Your task to perform on an android device: Search for "usb-a to usb-b" on target, select the first entry, and add it to the cart. Image 0: 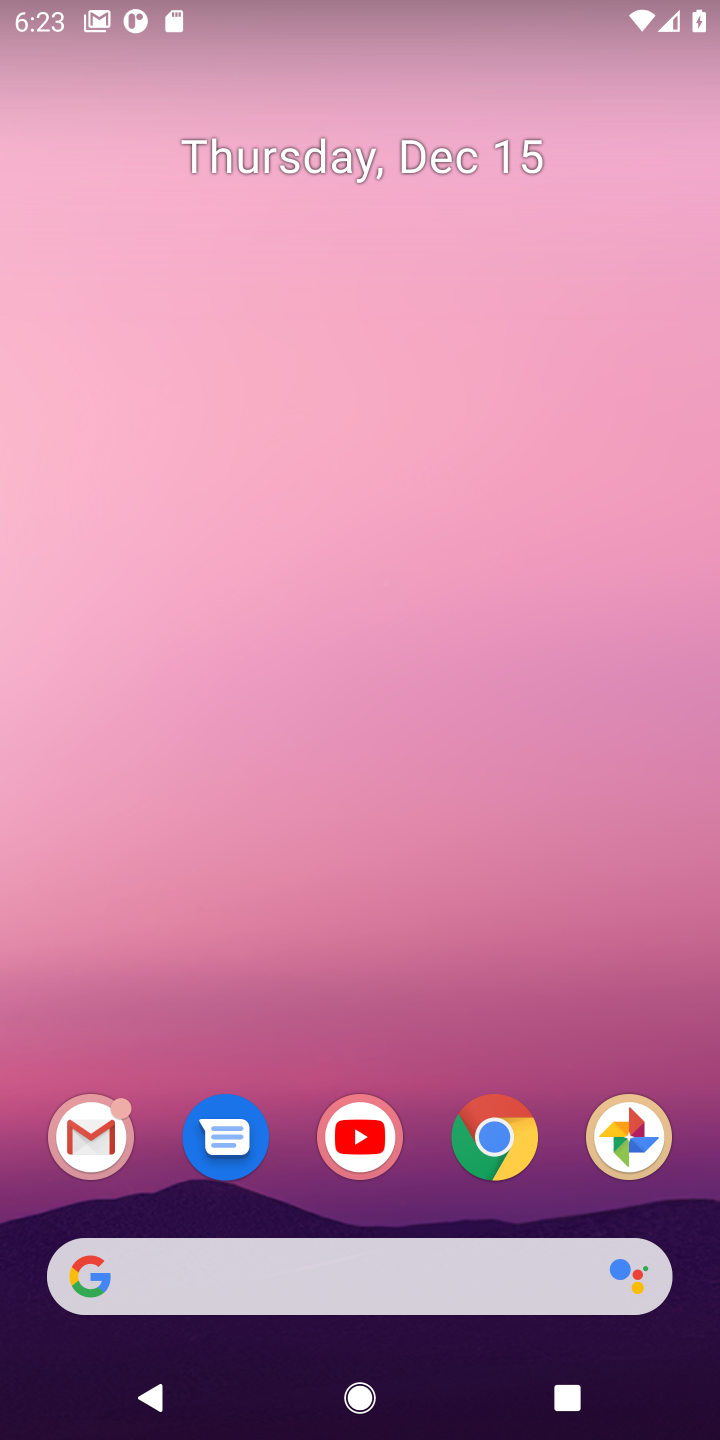
Step 0: drag from (327, 1266) to (330, 393)
Your task to perform on an android device: Search for "usb-a to usb-b" on target, select the first entry, and add it to the cart. Image 1: 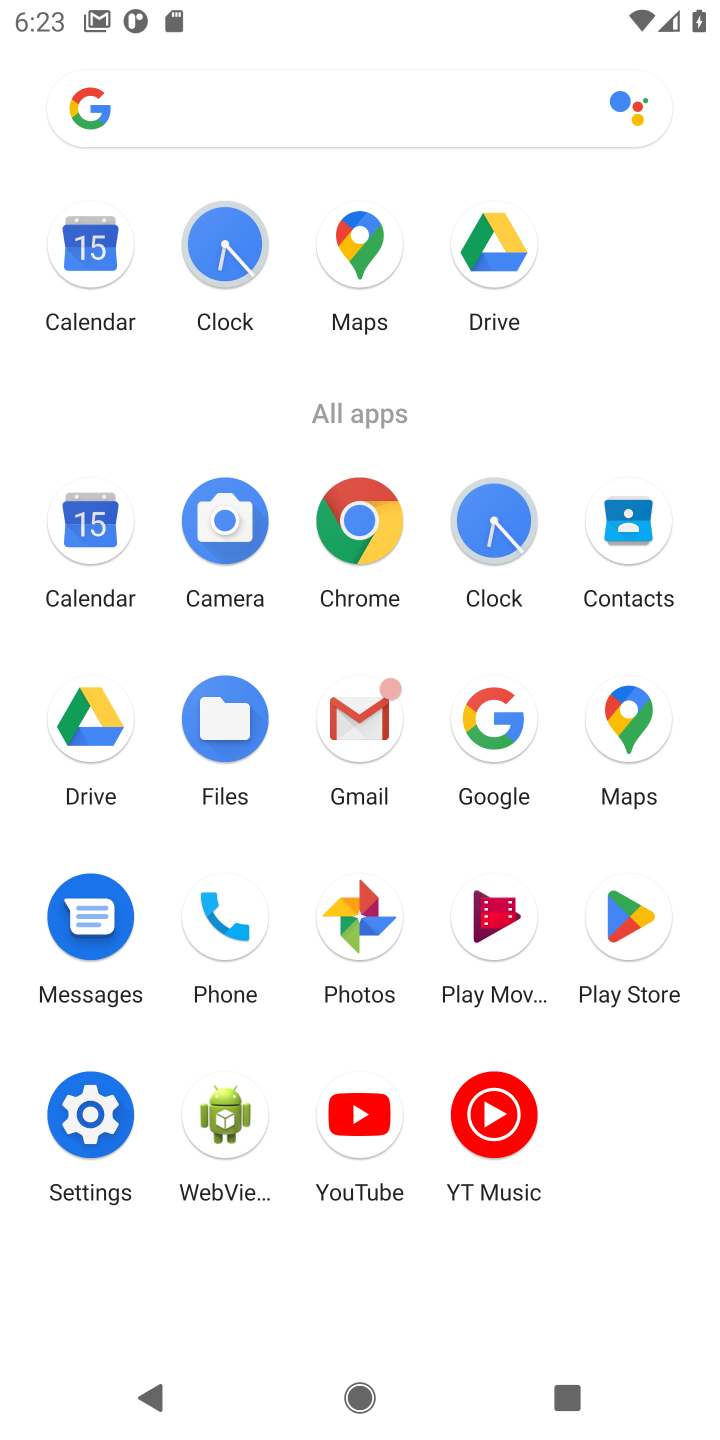
Step 1: click (519, 705)
Your task to perform on an android device: Search for "usb-a to usb-b" on target, select the first entry, and add it to the cart. Image 2: 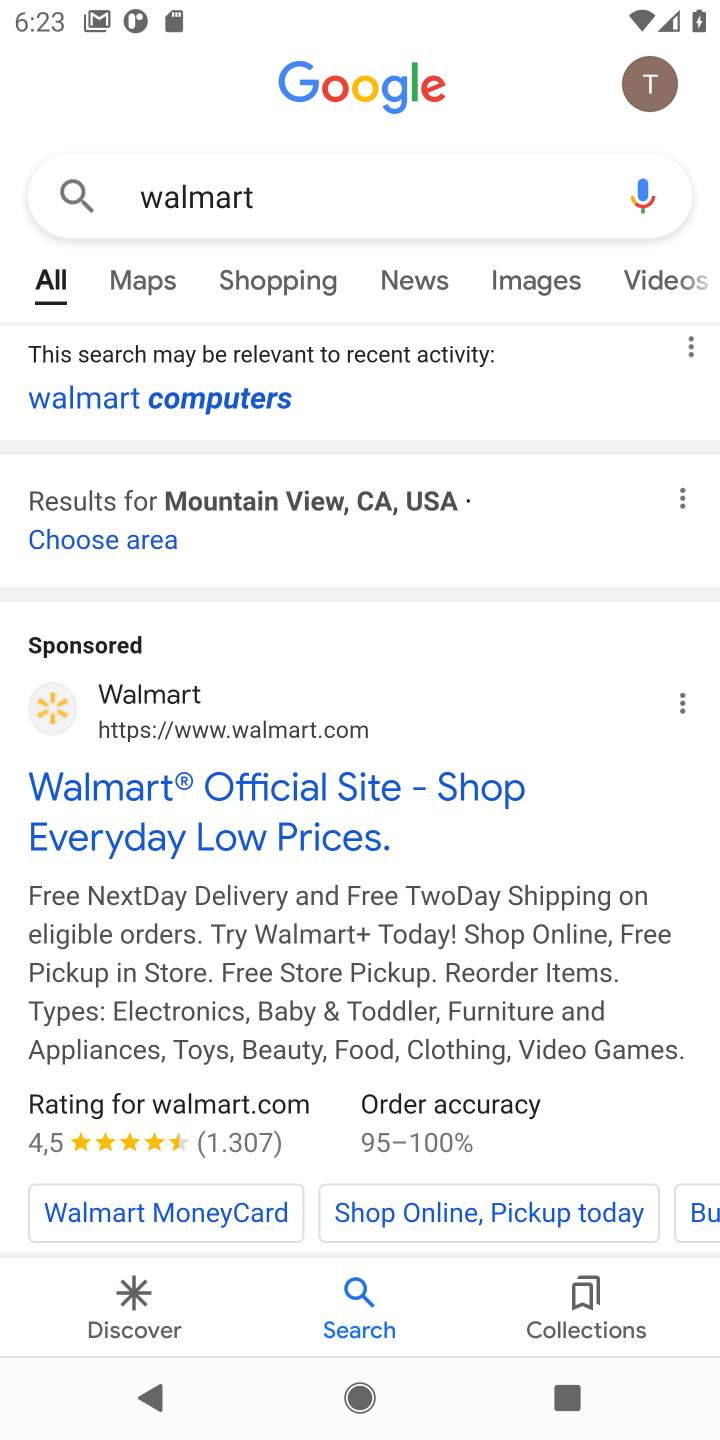
Step 2: click (202, 209)
Your task to perform on an android device: Search for "usb-a to usb-b" on target, select the first entry, and add it to the cart. Image 3: 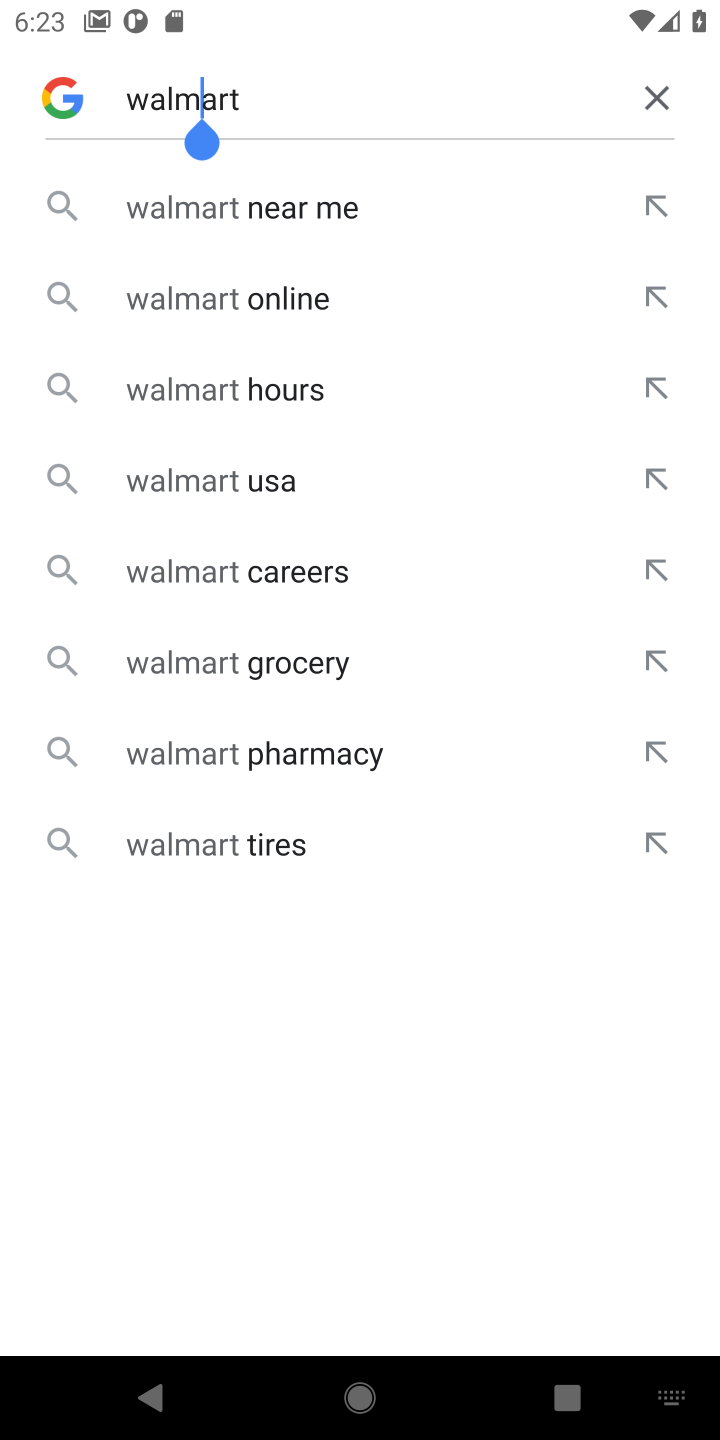
Step 3: click (638, 89)
Your task to perform on an android device: Search for "usb-a to usb-b" on target, select the first entry, and add it to the cart. Image 4: 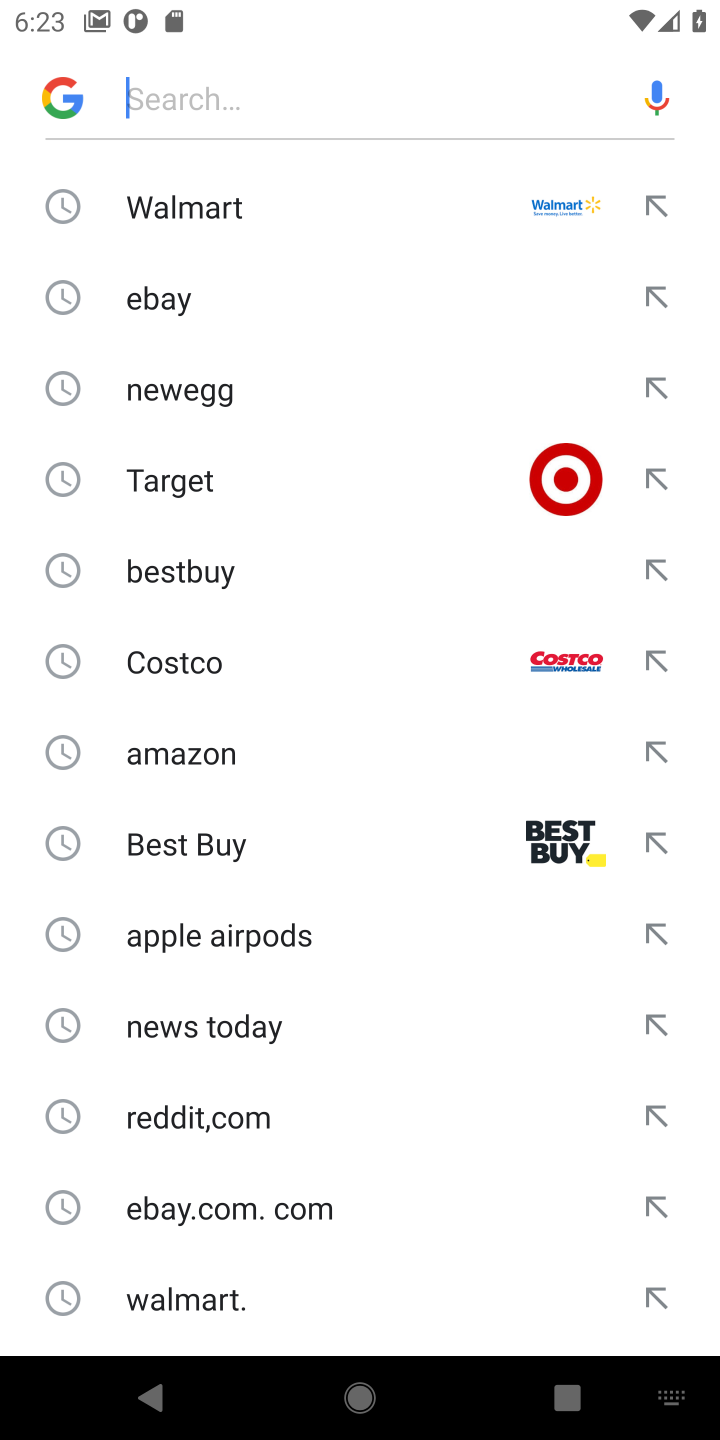
Step 4: click (160, 468)
Your task to perform on an android device: Search for "usb-a to usb-b" on target, select the first entry, and add it to the cart. Image 5: 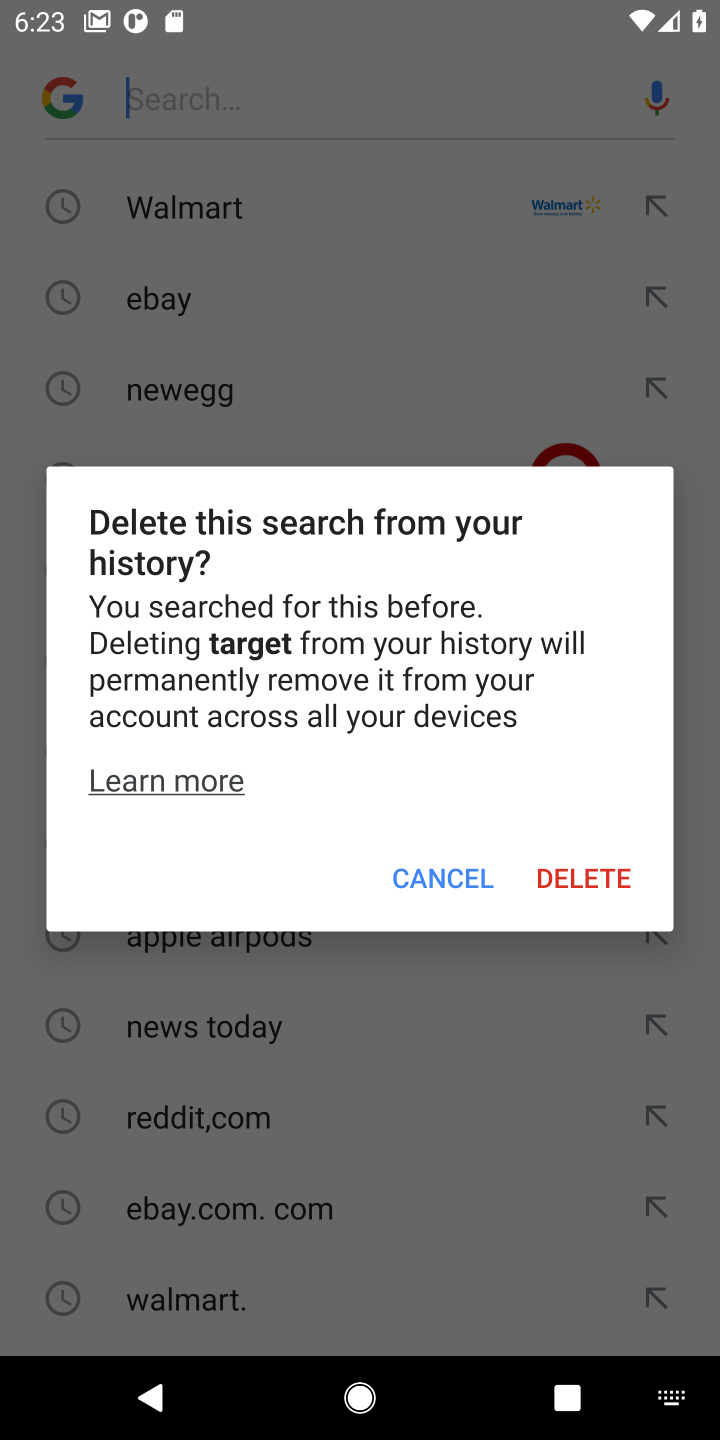
Step 5: click (437, 880)
Your task to perform on an android device: Search for "usb-a to usb-b" on target, select the first entry, and add it to the cart. Image 6: 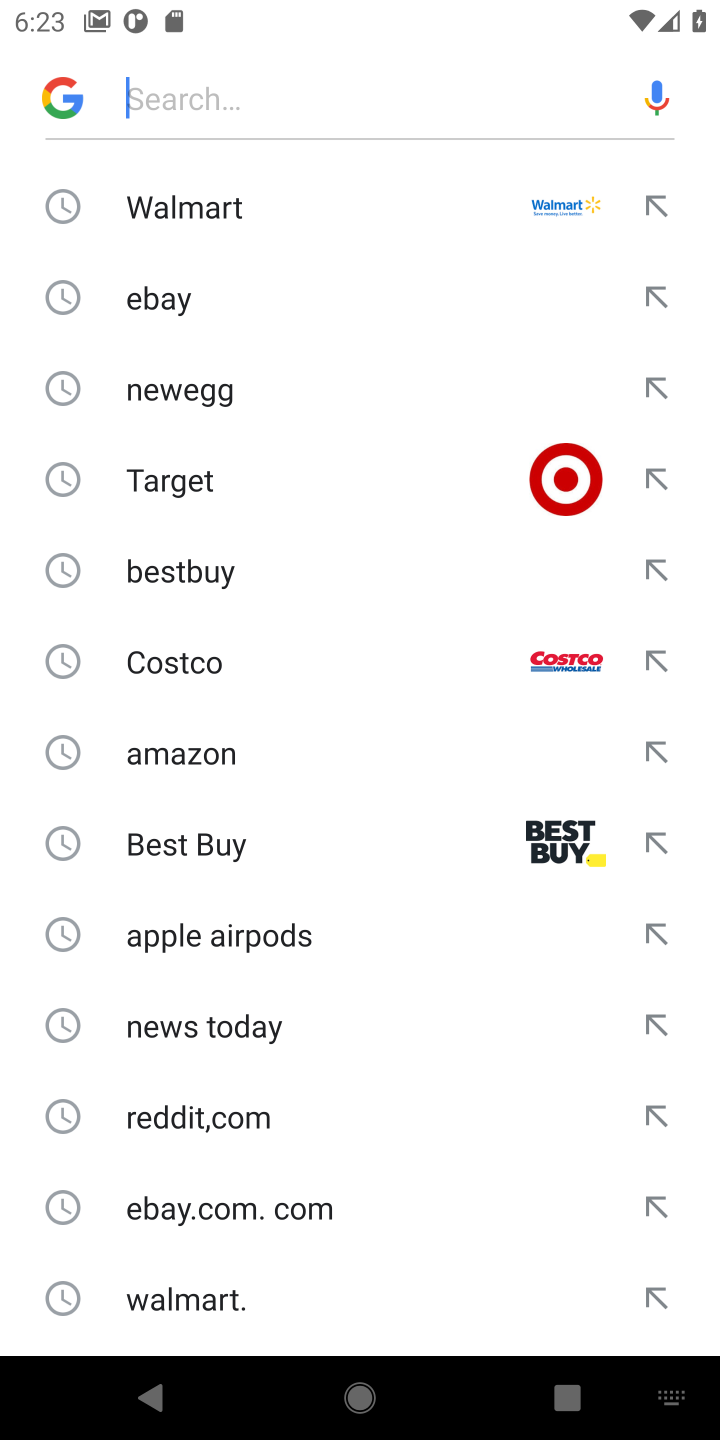
Step 6: click (560, 480)
Your task to perform on an android device: Search for "usb-a to usb-b" on target, select the first entry, and add it to the cart. Image 7: 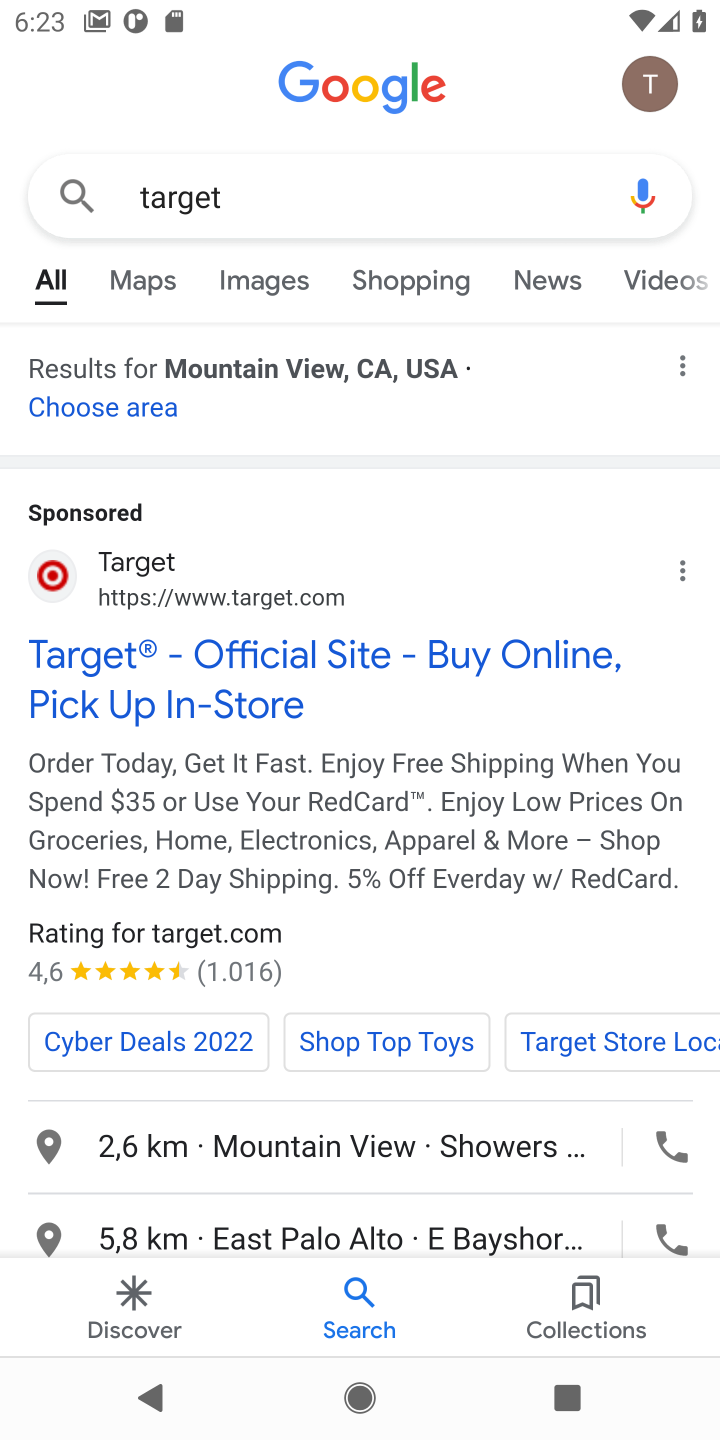
Step 7: click (176, 200)
Your task to perform on an android device: Search for "usb-a to usb-b" on target, select the first entry, and add it to the cart. Image 8: 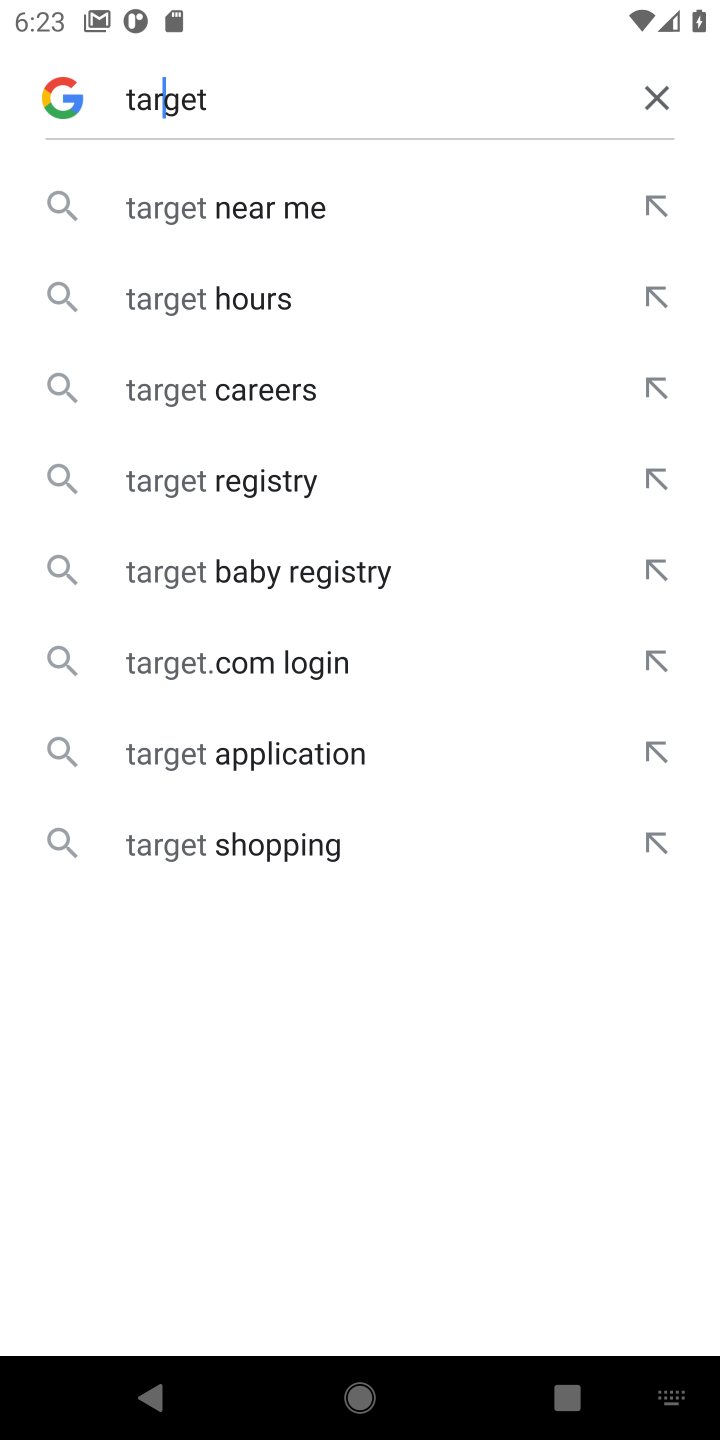
Step 8: click (661, 103)
Your task to perform on an android device: Search for "usb-a to usb-b" on target, select the first entry, and add it to the cart. Image 9: 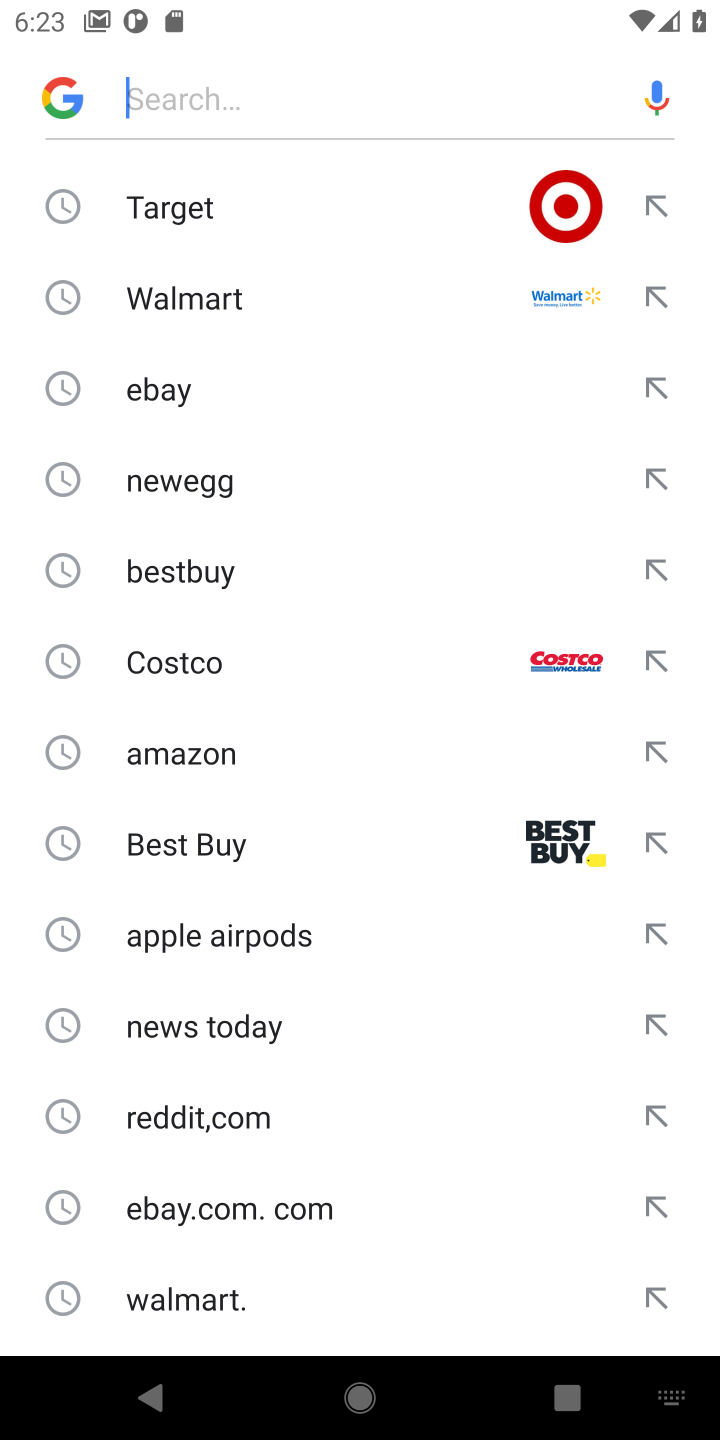
Step 9: click (182, 201)
Your task to perform on an android device: Search for "usb-a to usb-b" on target, select the first entry, and add it to the cart. Image 10: 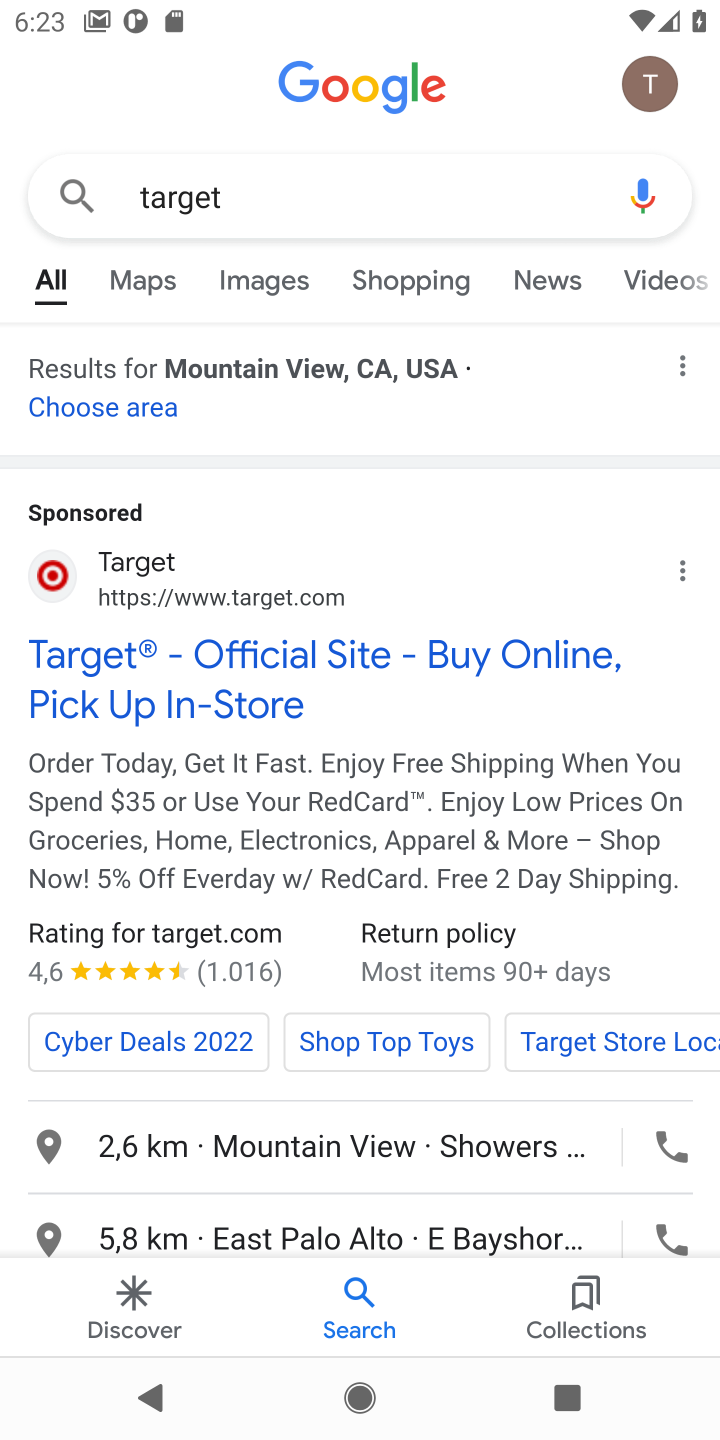
Step 10: click (218, 666)
Your task to perform on an android device: Search for "usb-a to usb-b" on target, select the first entry, and add it to the cart. Image 11: 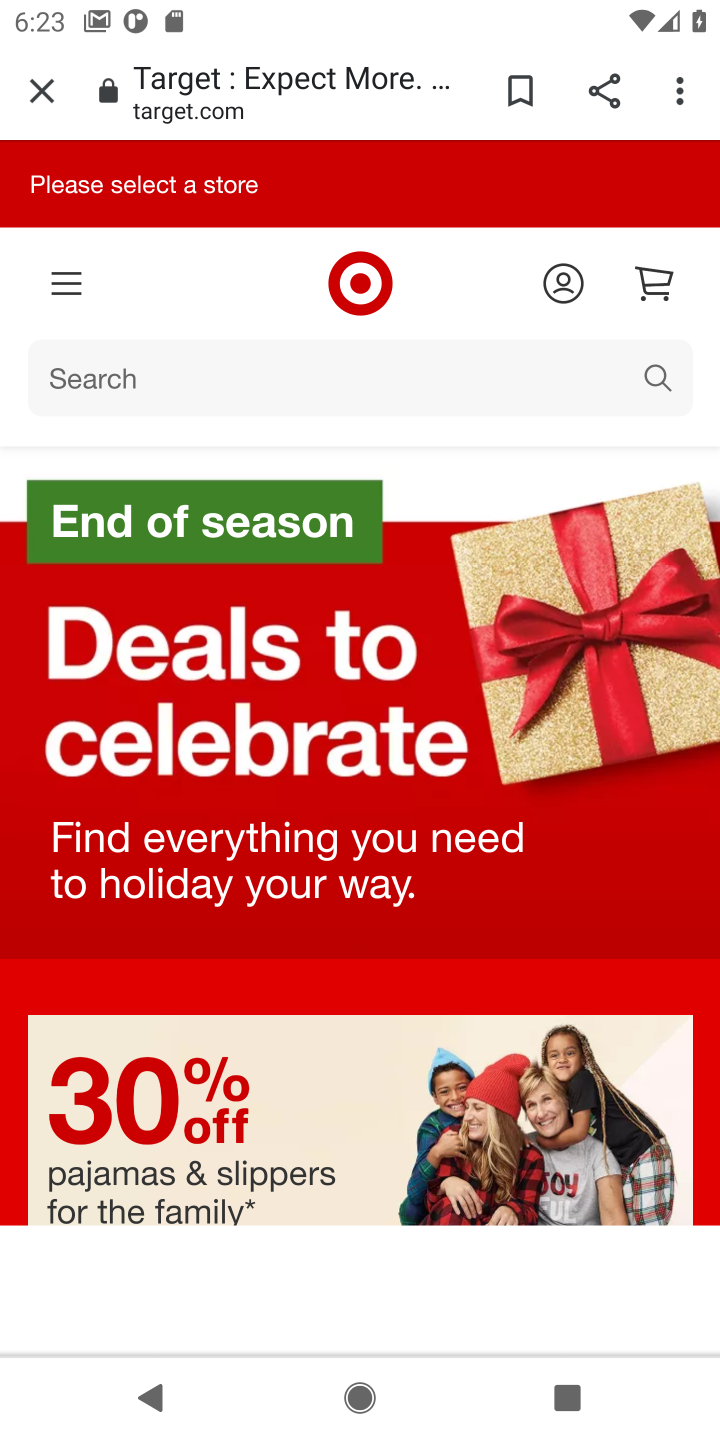
Step 11: click (134, 376)
Your task to perform on an android device: Search for "usb-a to usb-b" on target, select the first entry, and add it to the cart. Image 12: 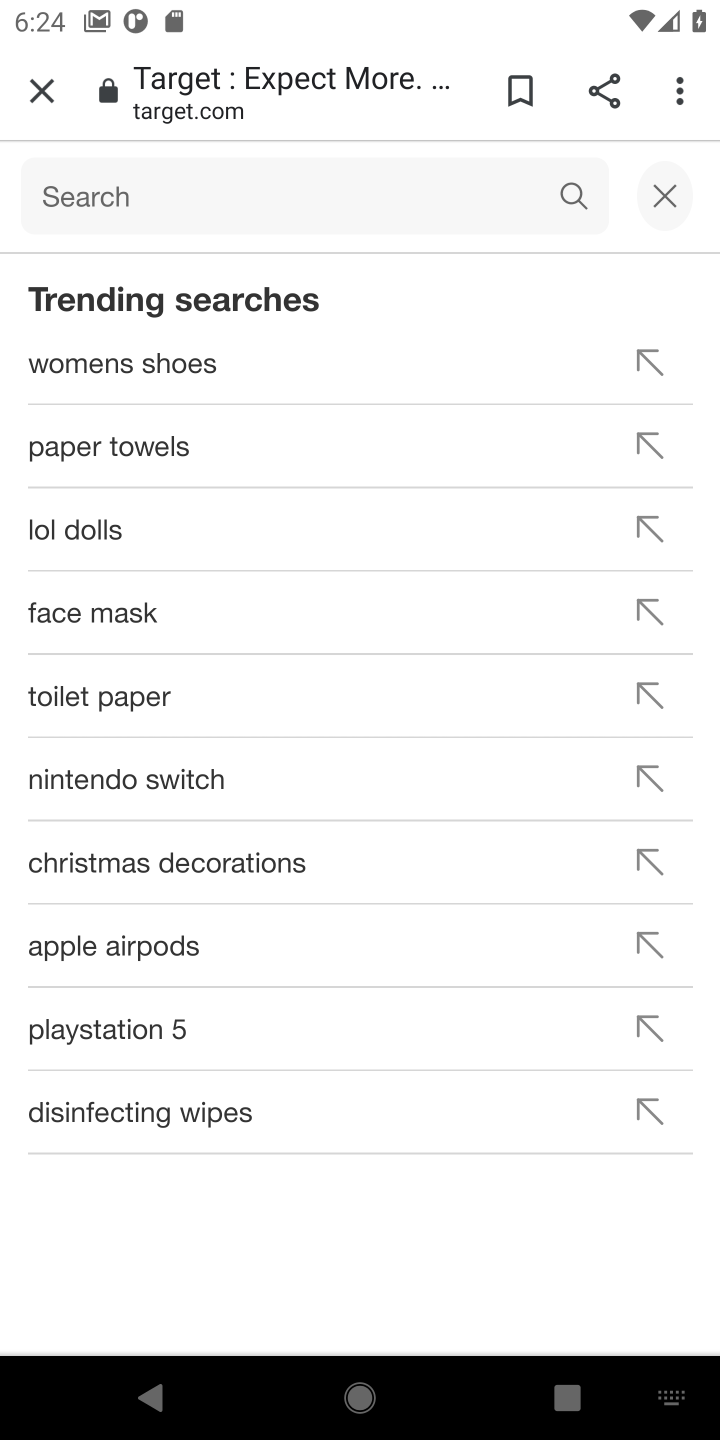
Step 12: type "usb-a to usb-b"
Your task to perform on an android device: Search for "usb-a to usb-b" on target, select the first entry, and add it to the cart. Image 13: 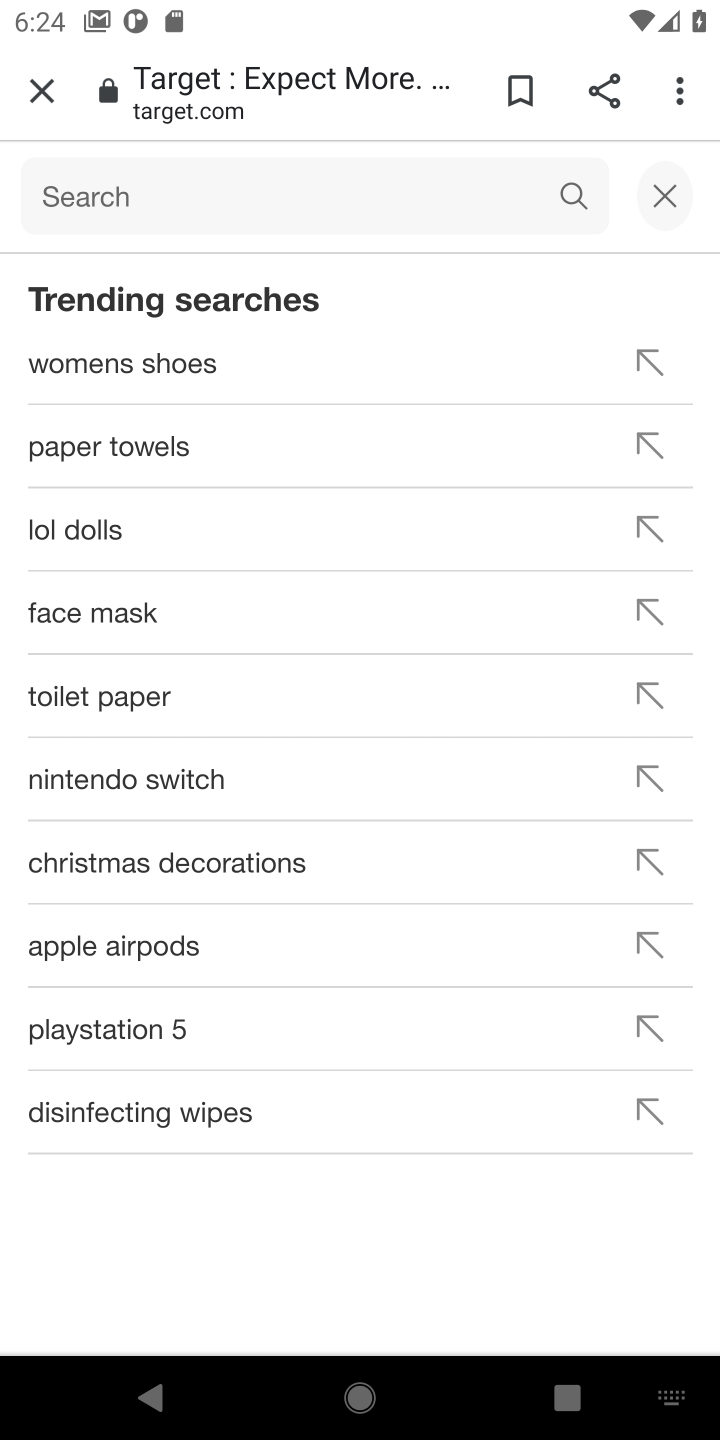
Step 13: click (564, 198)
Your task to perform on an android device: Search for "usb-a to usb-b" on target, select the first entry, and add it to the cart. Image 14: 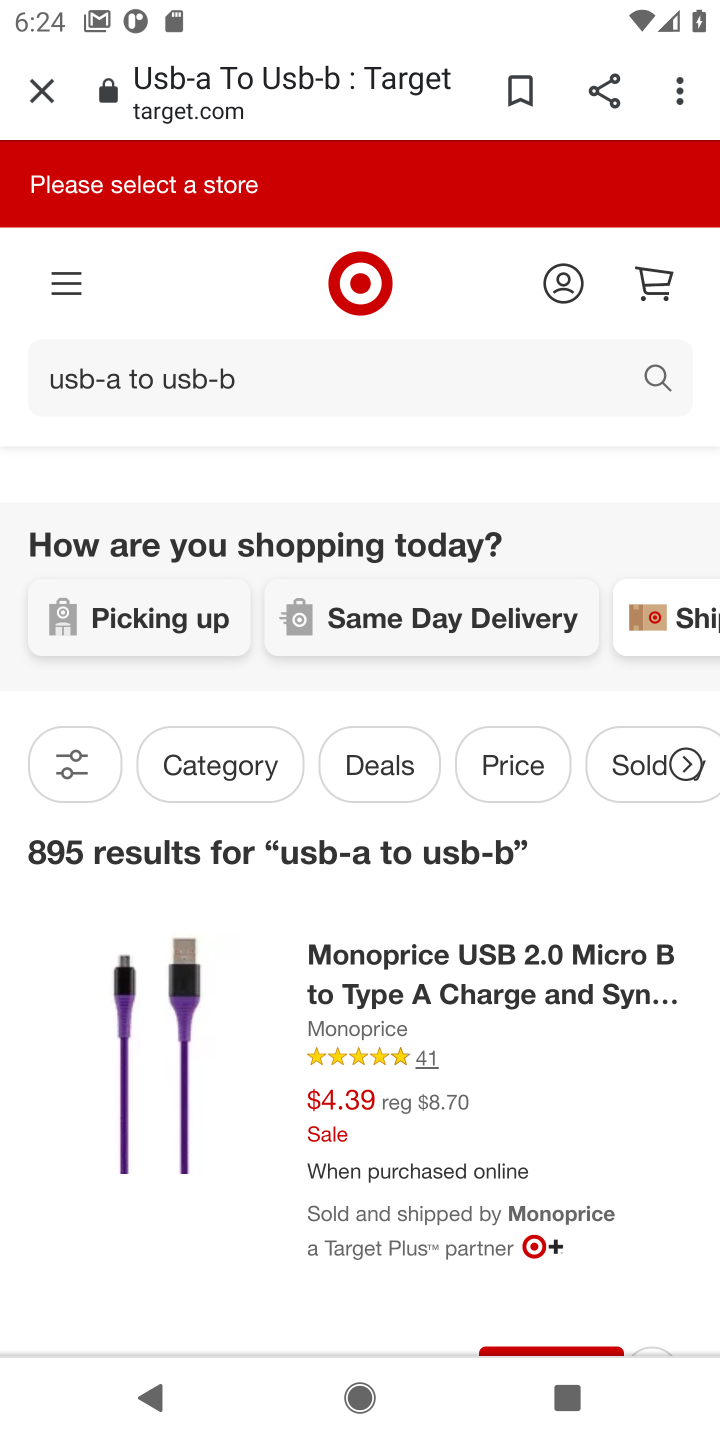
Step 14: drag from (357, 1138) to (339, 612)
Your task to perform on an android device: Search for "usb-a to usb-b" on target, select the first entry, and add it to the cart. Image 15: 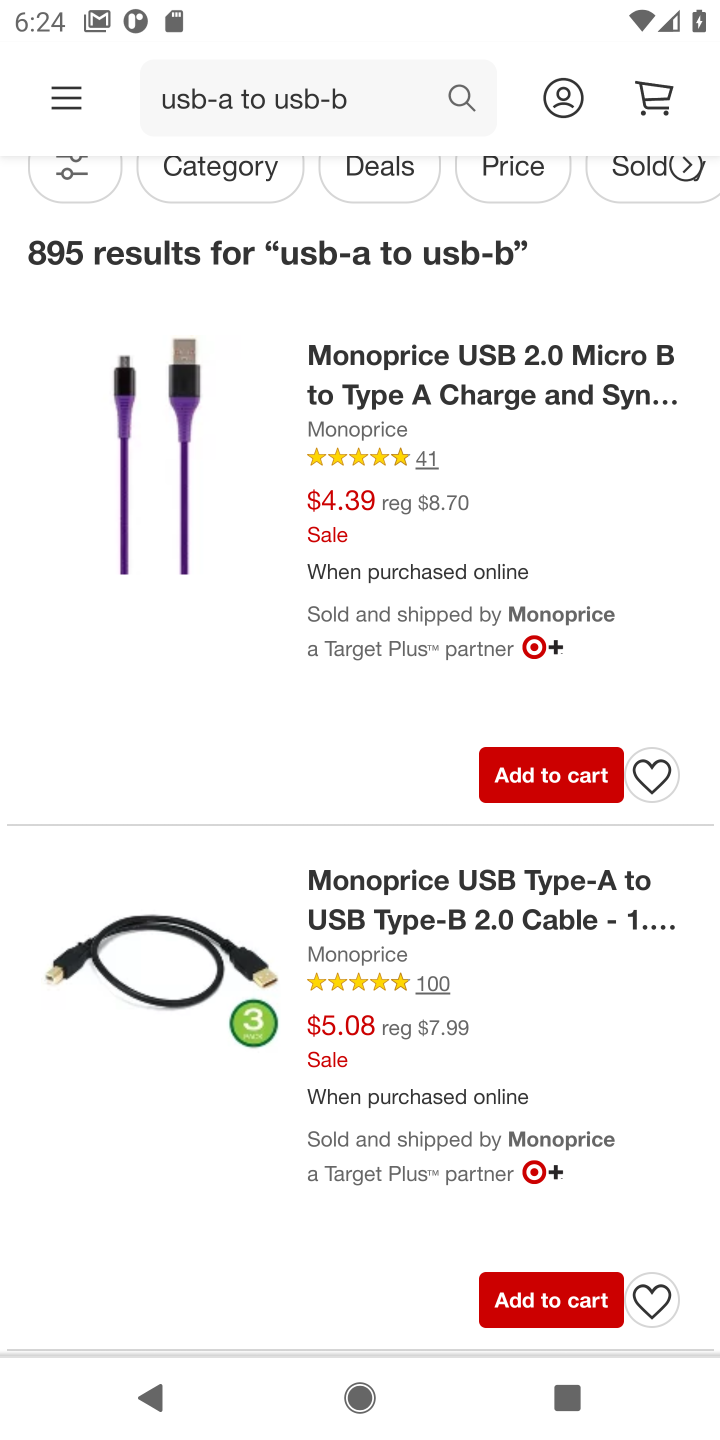
Step 15: click (555, 773)
Your task to perform on an android device: Search for "usb-a to usb-b" on target, select the first entry, and add it to the cart. Image 16: 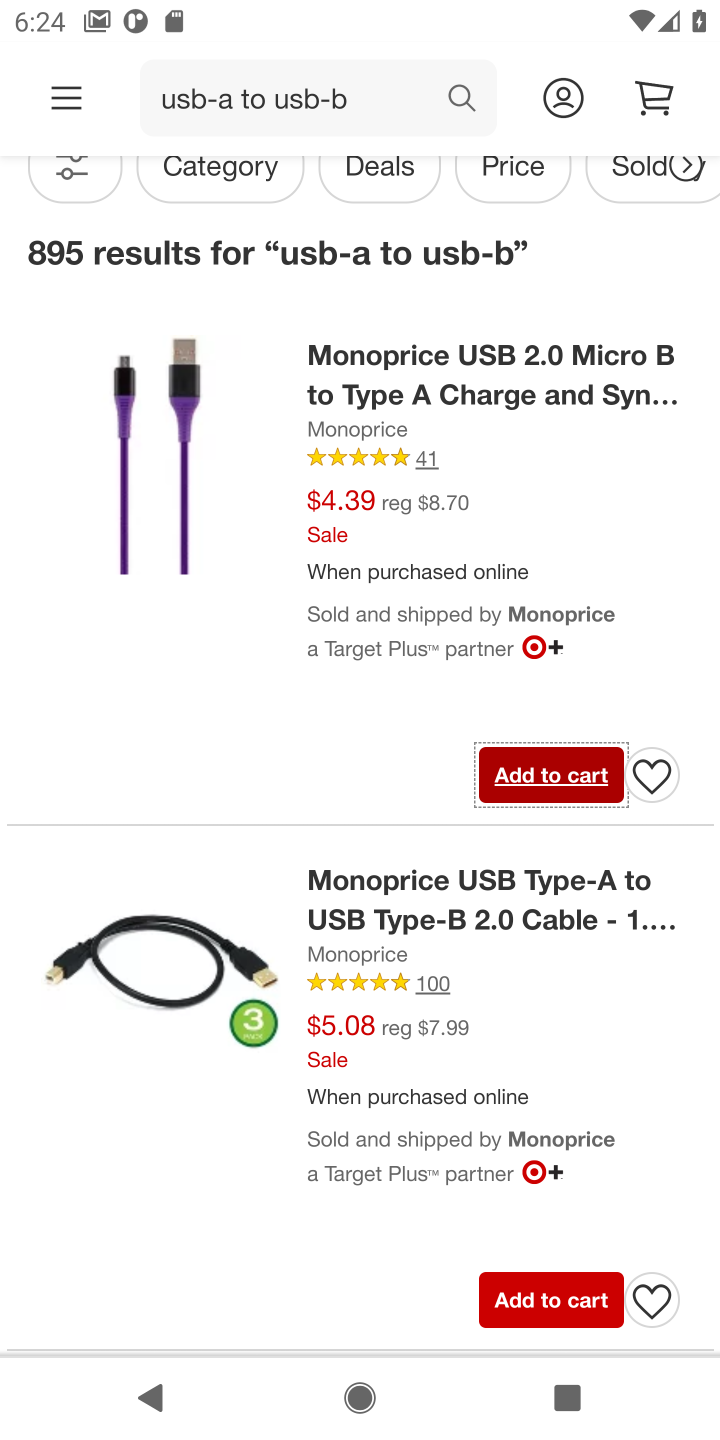
Step 16: click (554, 774)
Your task to perform on an android device: Search for "usb-a to usb-b" on target, select the first entry, and add it to the cart. Image 17: 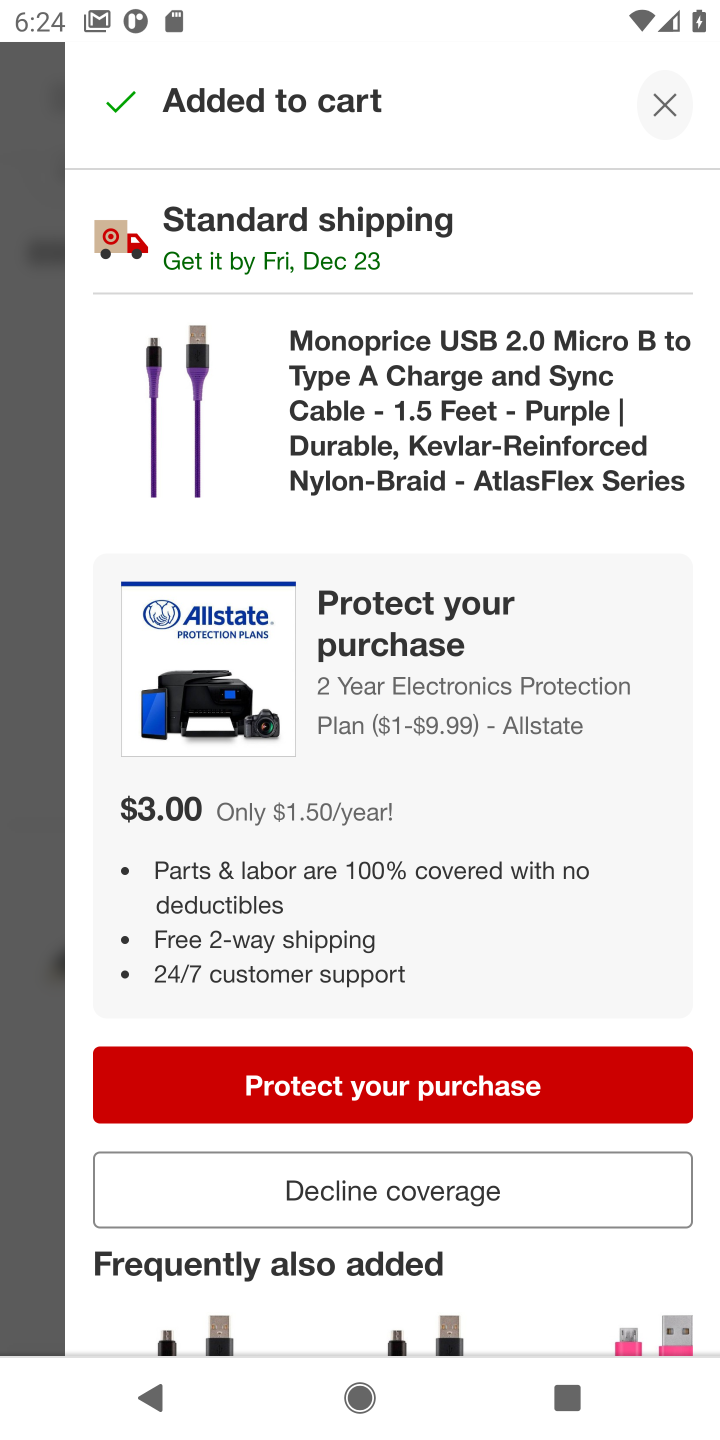
Step 17: task complete